Your task to perform on an android device: Open Maps and search for coffee Image 0: 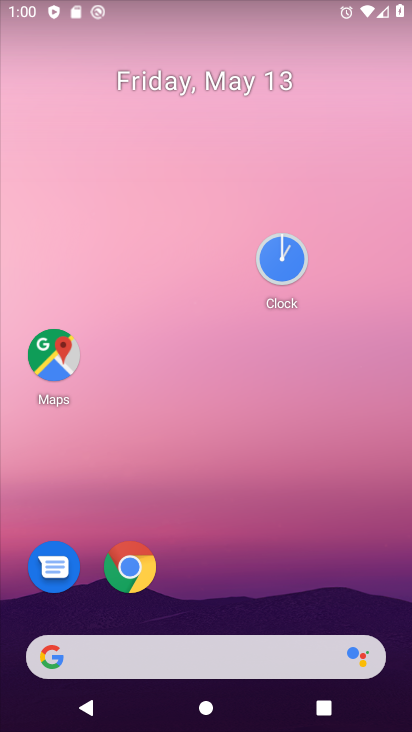
Step 0: click (127, 559)
Your task to perform on an android device: Open Maps and search for coffee Image 1: 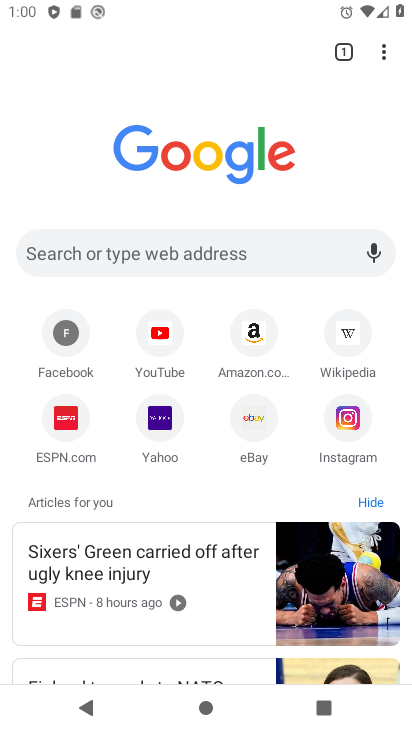
Step 1: press home button
Your task to perform on an android device: Open Maps and search for coffee Image 2: 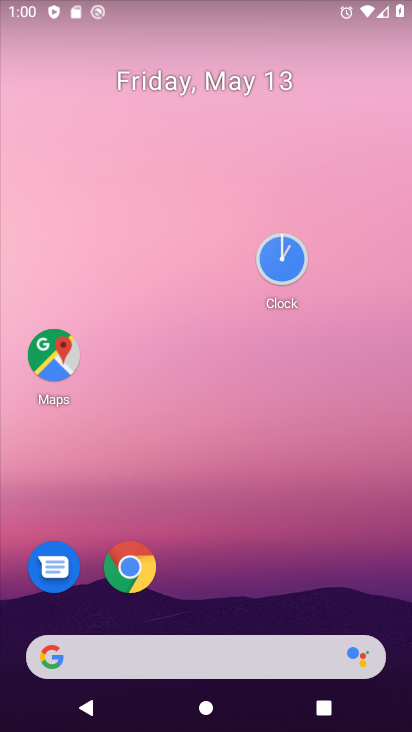
Step 2: click (34, 348)
Your task to perform on an android device: Open Maps and search for coffee Image 3: 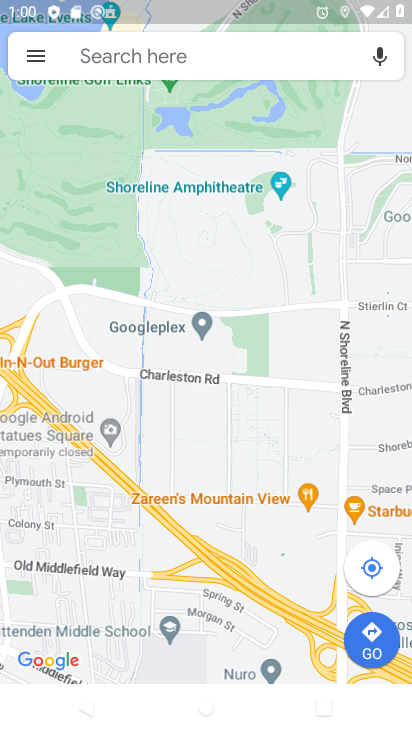
Step 3: click (270, 64)
Your task to perform on an android device: Open Maps and search for coffee Image 4: 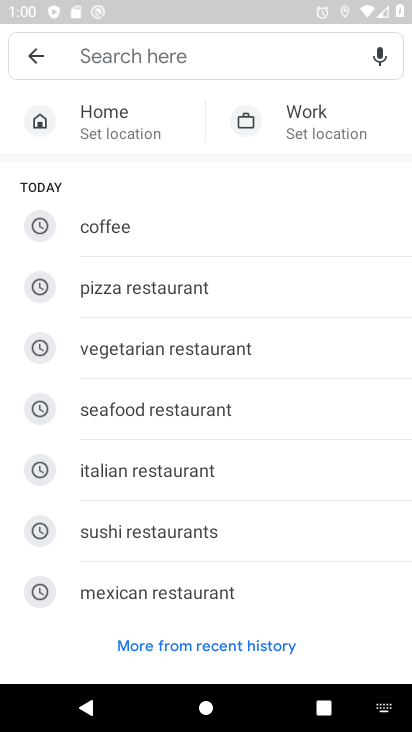
Step 4: type "coffee"
Your task to perform on an android device: Open Maps and search for coffee Image 5: 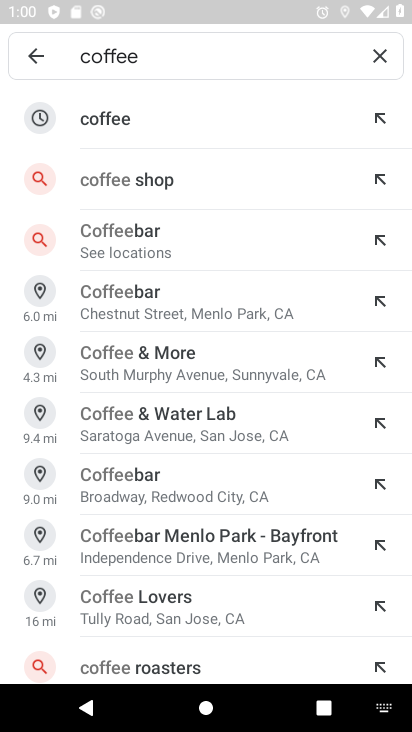
Step 5: click (203, 137)
Your task to perform on an android device: Open Maps and search for coffee Image 6: 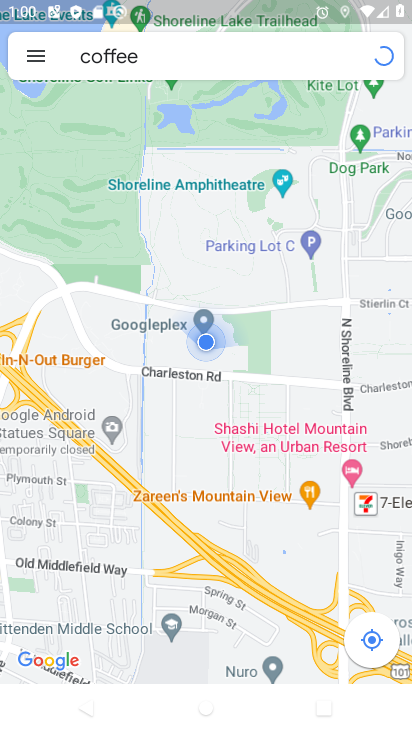
Step 6: task complete